Your task to perform on an android device: toggle improve location accuracy Image 0: 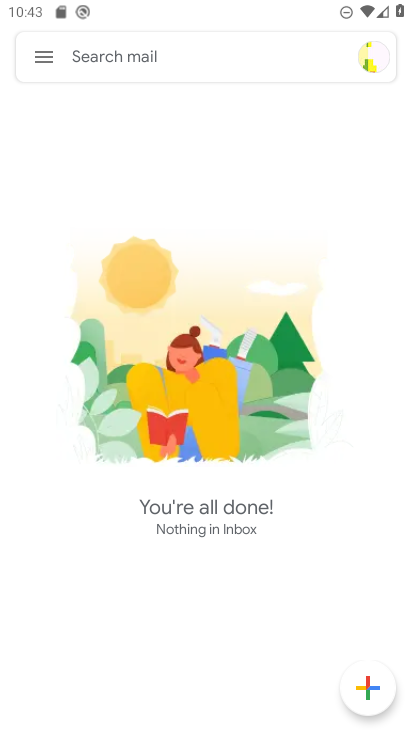
Step 0: press home button
Your task to perform on an android device: toggle improve location accuracy Image 1: 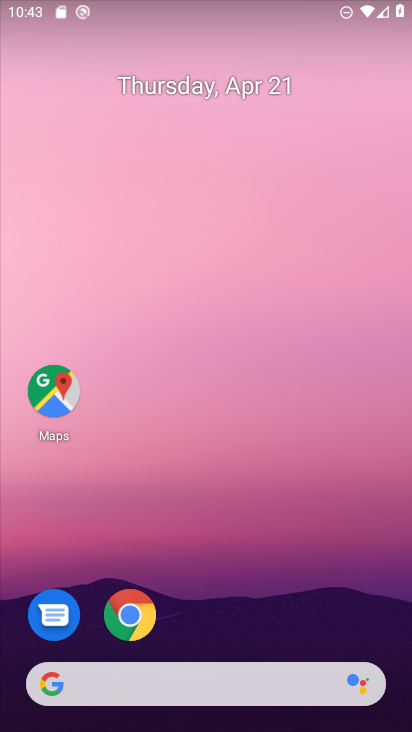
Step 1: drag from (211, 662) to (211, 167)
Your task to perform on an android device: toggle improve location accuracy Image 2: 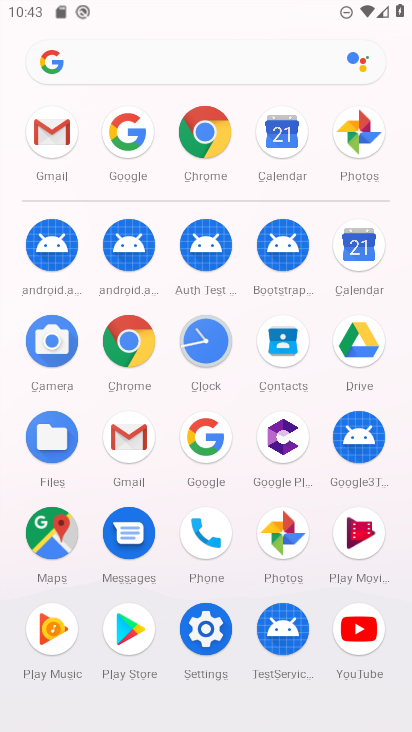
Step 2: click (204, 624)
Your task to perform on an android device: toggle improve location accuracy Image 3: 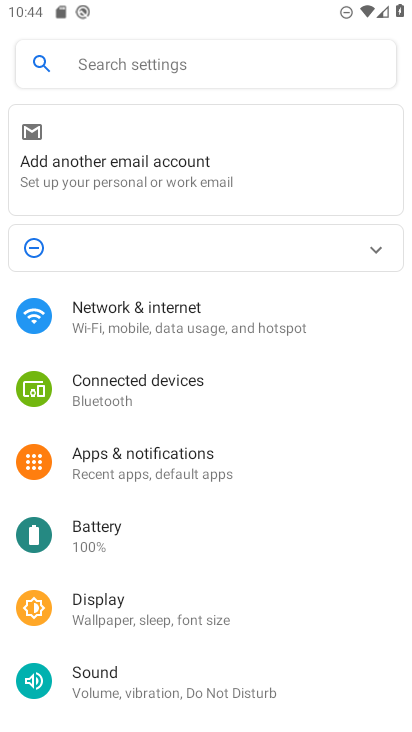
Step 3: drag from (185, 660) to (187, 270)
Your task to perform on an android device: toggle improve location accuracy Image 4: 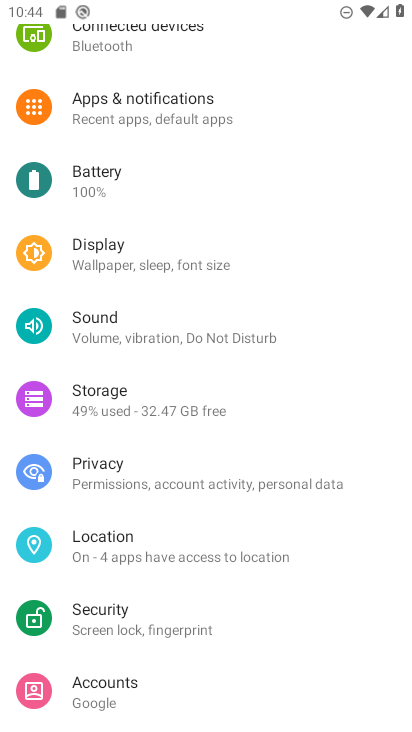
Step 4: click (109, 539)
Your task to perform on an android device: toggle improve location accuracy Image 5: 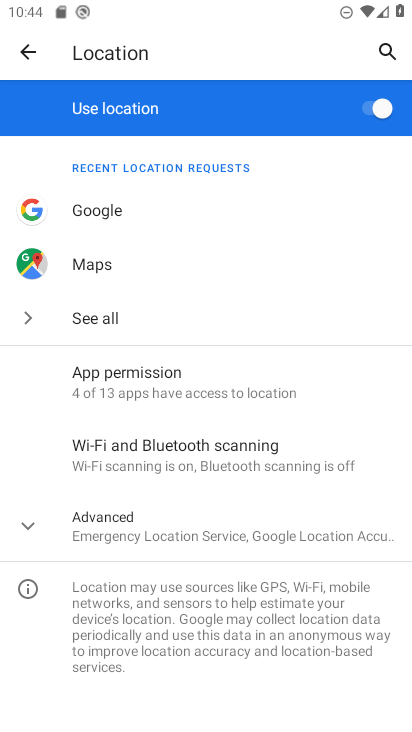
Step 5: click (108, 528)
Your task to perform on an android device: toggle improve location accuracy Image 6: 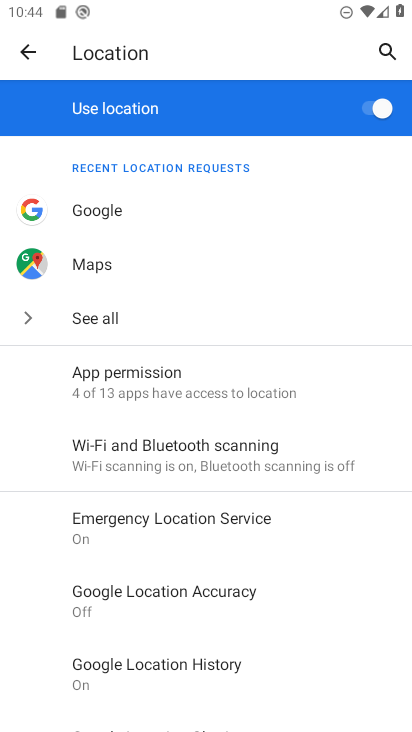
Step 6: click (147, 591)
Your task to perform on an android device: toggle improve location accuracy Image 7: 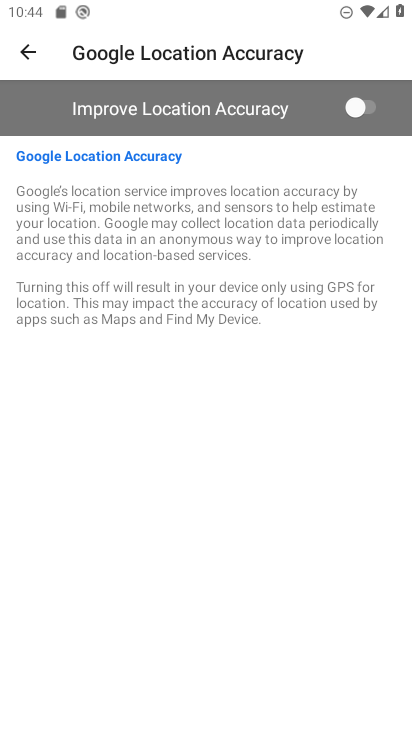
Step 7: click (362, 104)
Your task to perform on an android device: toggle improve location accuracy Image 8: 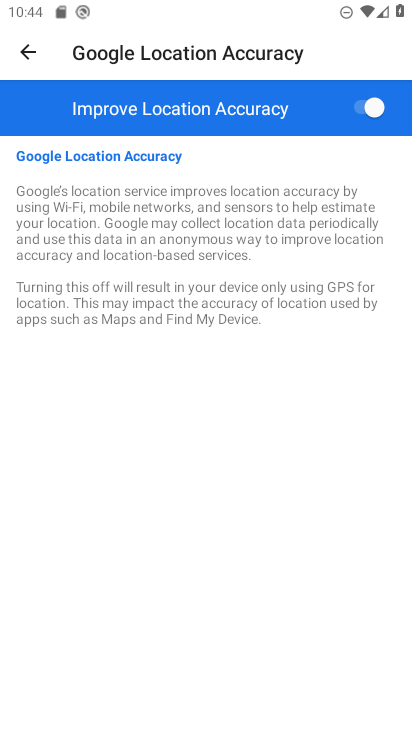
Step 8: task complete